Your task to perform on an android device: toggle location history Image 0: 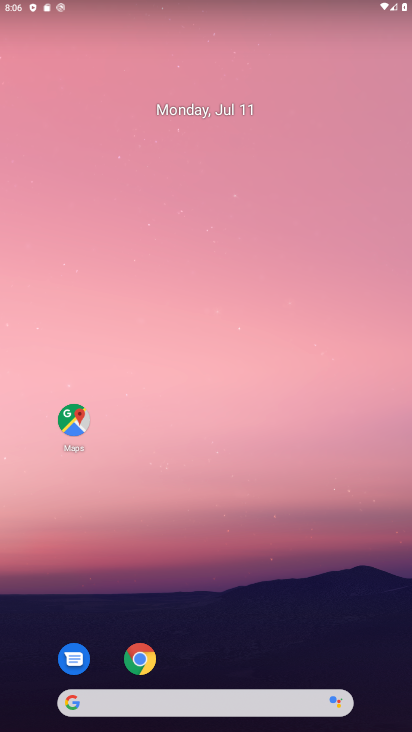
Step 0: drag from (216, 667) to (206, 281)
Your task to perform on an android device: toggle location history Image 1: 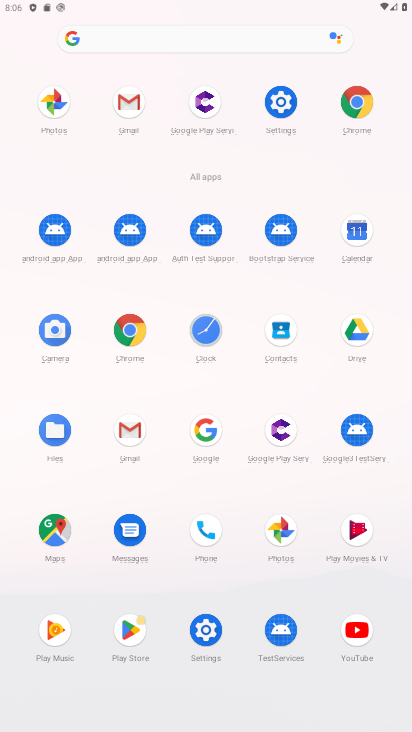
Step 1: click (276, 102)
Your task to perform on an android device: toggle location history Image 2: 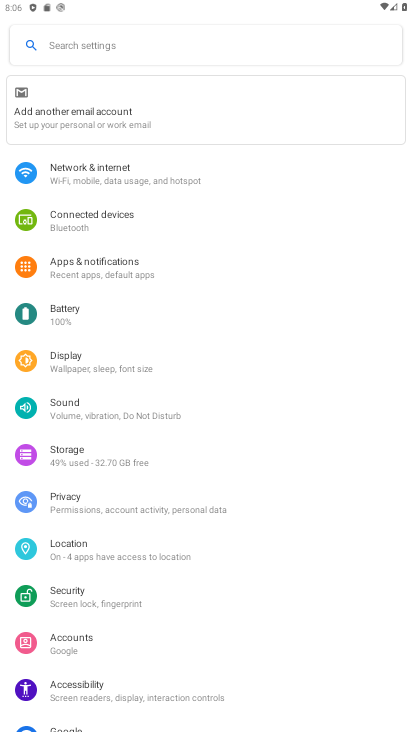
Step 2: click (132, 548)
Your task to perform on an android device: toggle location history Image 3: 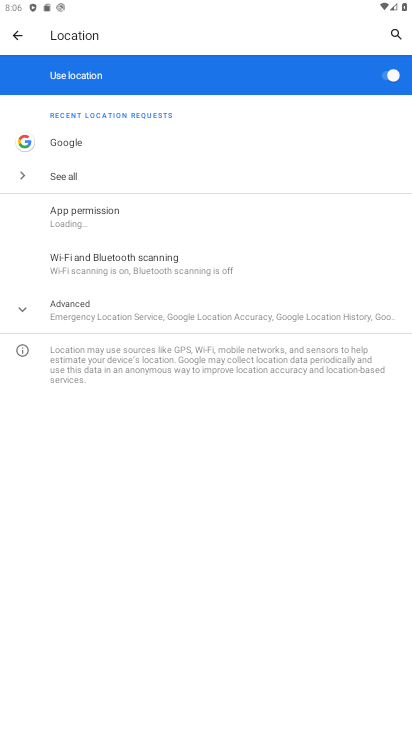
Step 3: click (197, 320)
Your task to perform on an android device: toggle location history Image 4: 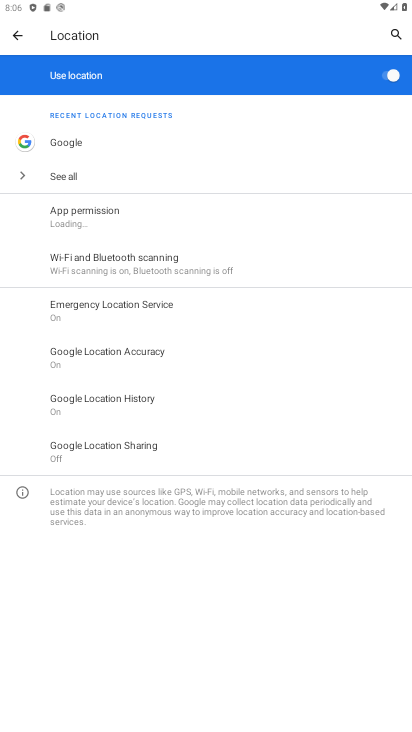
Step 4: click (153, 391)
Your task to perform on an android device: toggle location history Image 5: 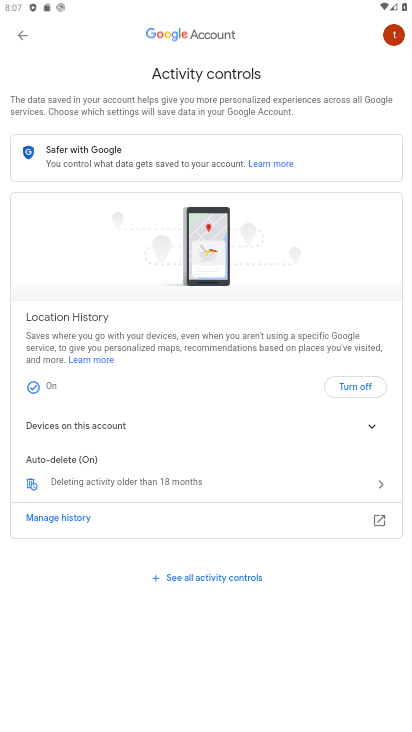
Step 5: click (351, 394)
Your task to perform on an android device: toggle location history Image 6: 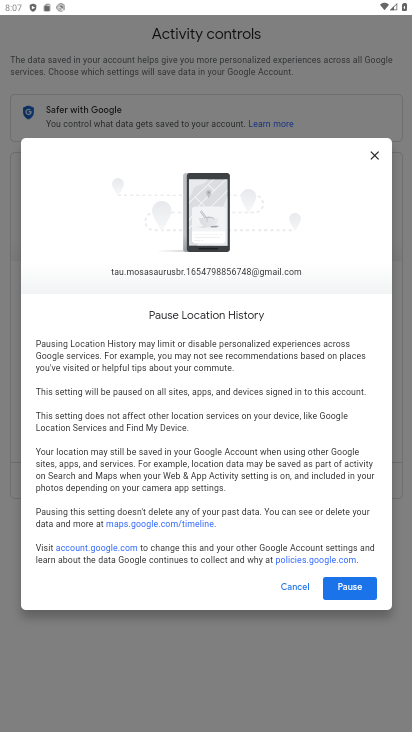
Step 6: click (344, 581)
Your task to perform on an android device: toggle location history Image 7: 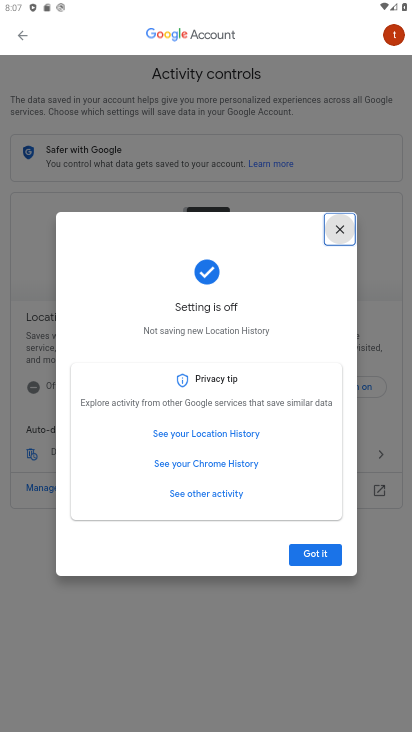
Step 7: click (303, 550)
Your task to perform on an android device: toggle location history Image 8: 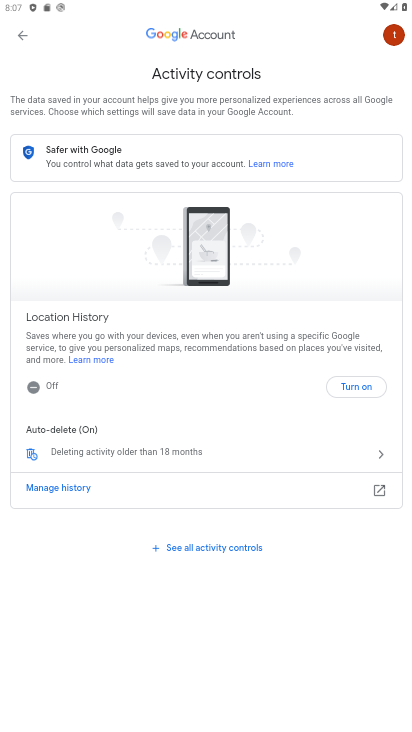
Step 8: task complete